Your task to perform on an android device: Open Chrome and go to settings Image 0: 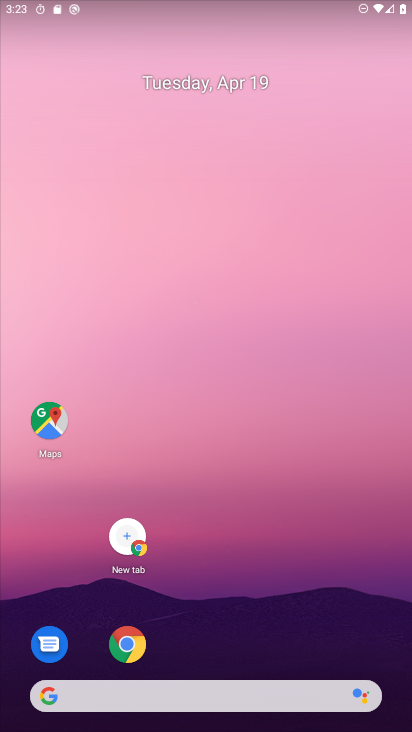
Step 0: click (132, 649)
Your task to perform on an android device: Open Chrome and go to settings Image 1: 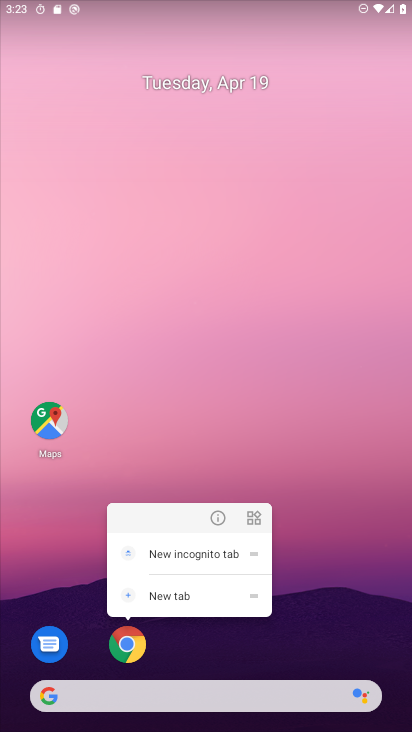
Step 1: click (131, 648)
Your task to perform on an android device: Open Chrome and go to settings Image 2: 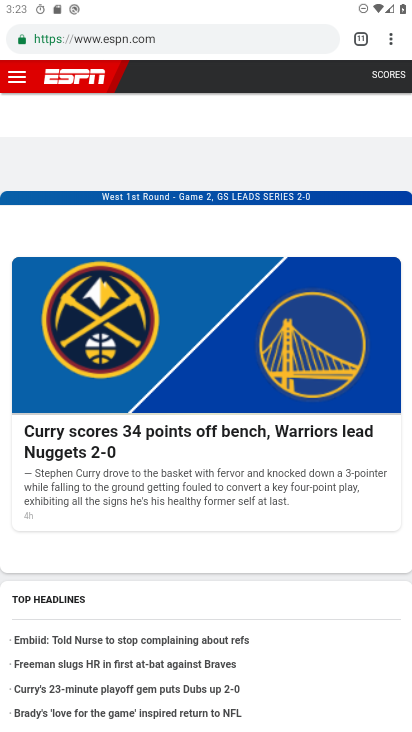
Step 2: click (393, 37)
Your task to perform on an android device: Open Chrome and go to settings Image 3: 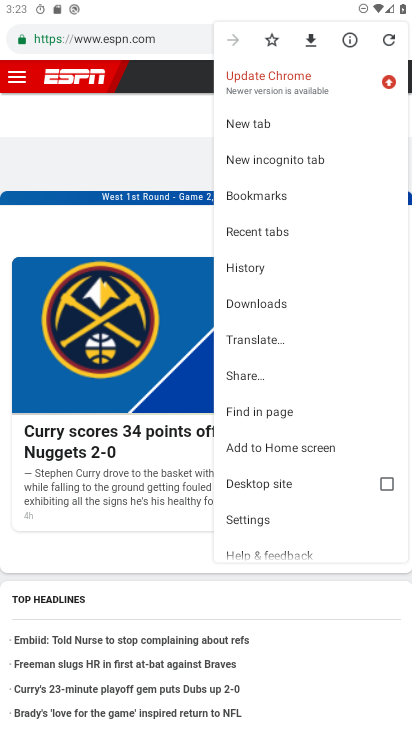
Step 3: click (264, 518)
Your task to perform on an android device: Open Chrome and go to settings Image 4: 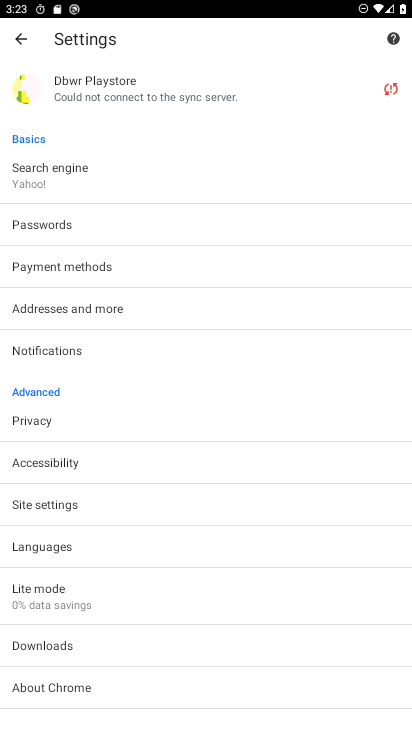
Step 4: task complete